Your task to perform on an android device: delete the emails in spam in the gmail app Image 0: 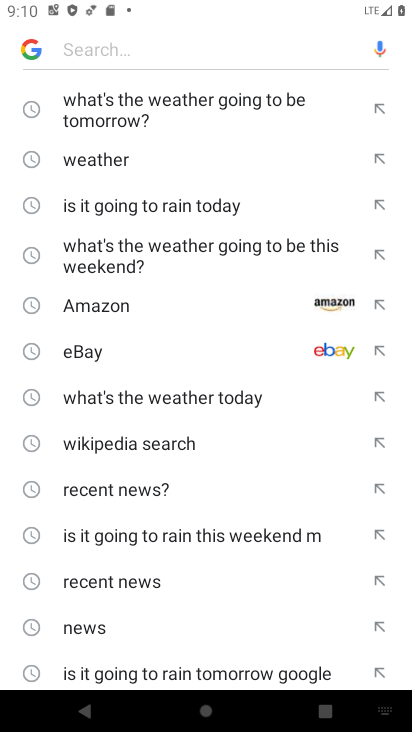
Step 0: press home button
Your task to perform on an android device: delete the emails in spam in the gmail app Image 1: 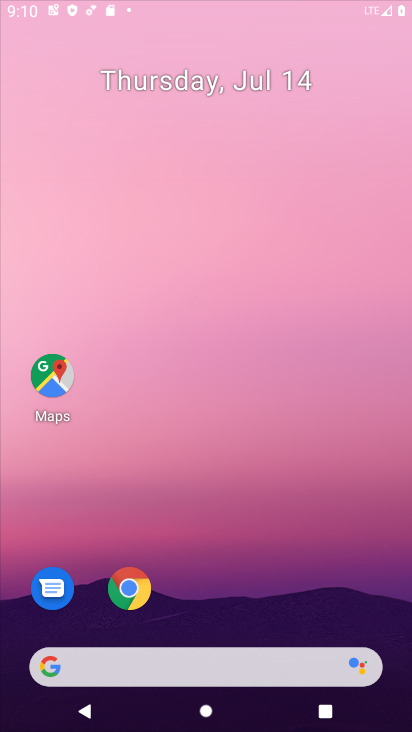
Step 1: drag from (395, 680) to (287, 65)
Your task to perform on an android device: delete the emails in spam in the gmail app Image 2: 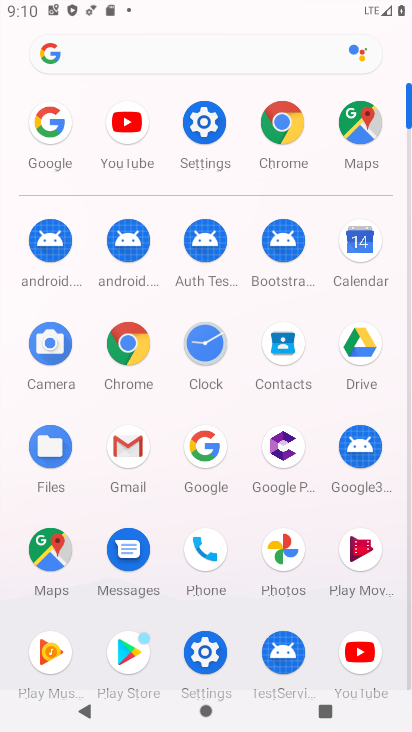
Step 2: click (119, 465)
Your task to perform on an android device: delete the emails in spam in the gmail app Image 3: 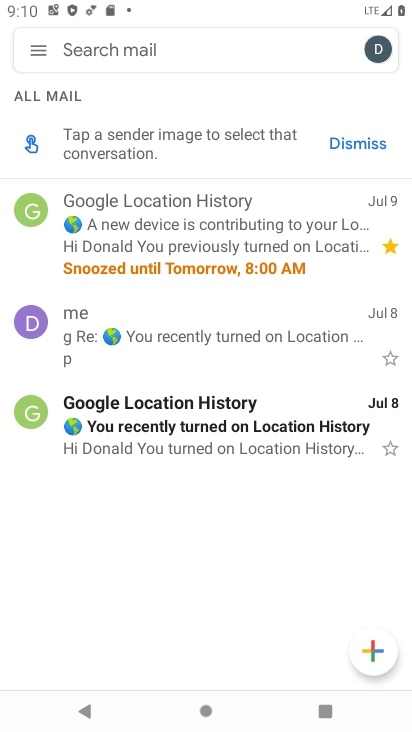
Step 3: click (39, 55)
Your task to perform on an android device: delete the emails in spam in the gmail app Image 4: 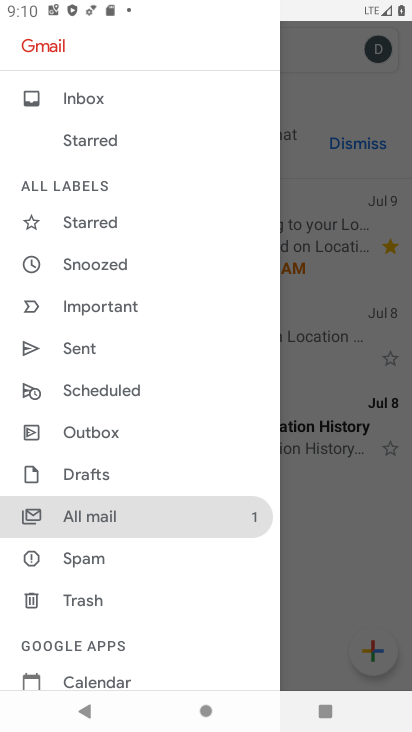
Step 4: drag from (159, 655) to (162, 401)
Your task to perform on an android device: delete the emails in spam in the gmail app Image 5: 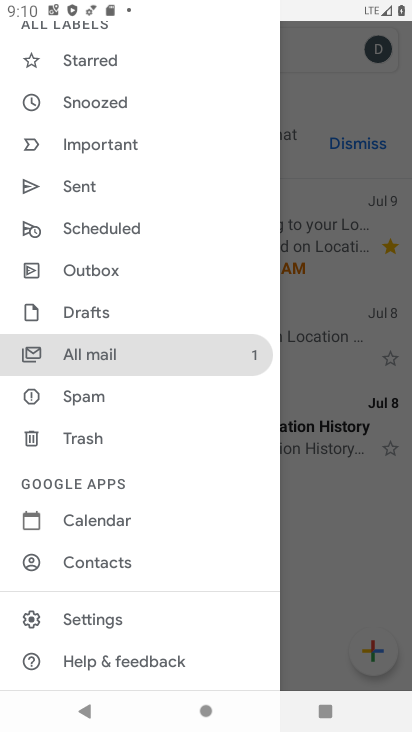
Step 5: click (112, 391)
Your task to perform on an android device: delete the emails in spam in the gmail app Image 6: 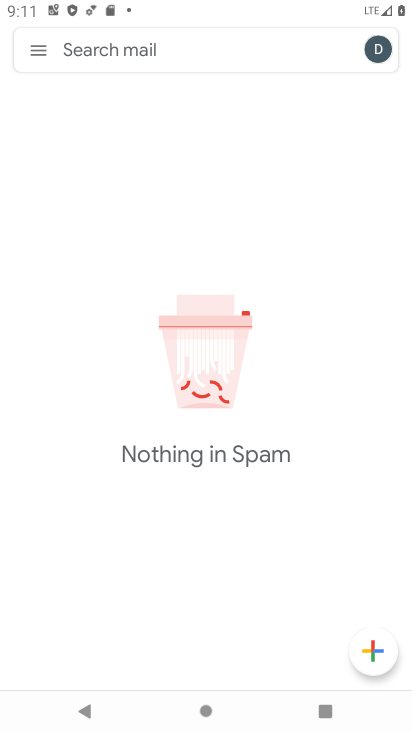
Step 6: task complete